Your task to perform on an android device: change keyboard looks Image 0: 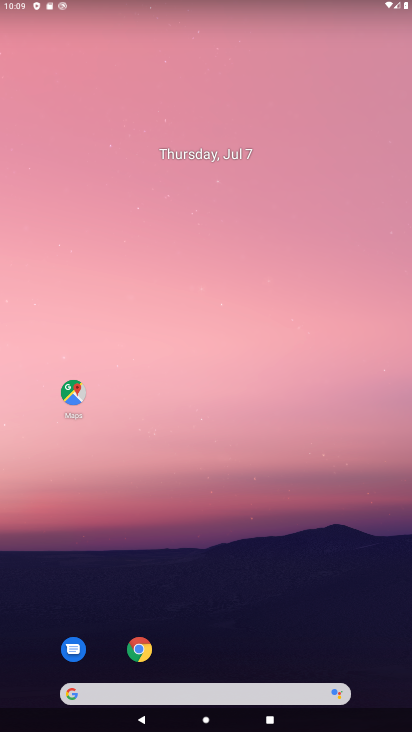
Step 0: drag from (301, 643) to (263, 152)
Your task to perform on an android device: change keyboard looks Image 1: 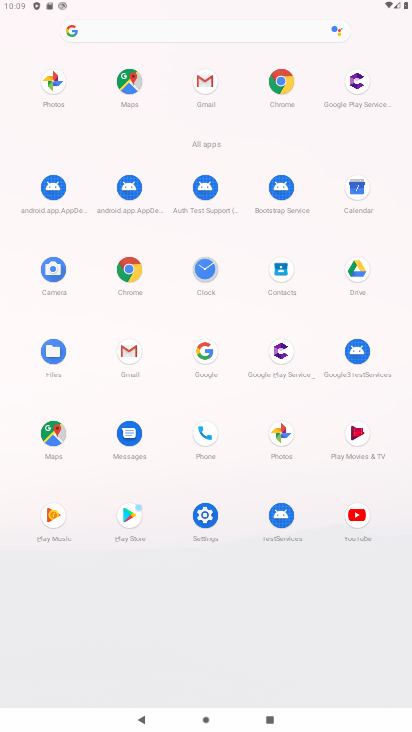
Step 1: click (219, 513)
Your task to perform on an android device: change keyboard looks Image 2: 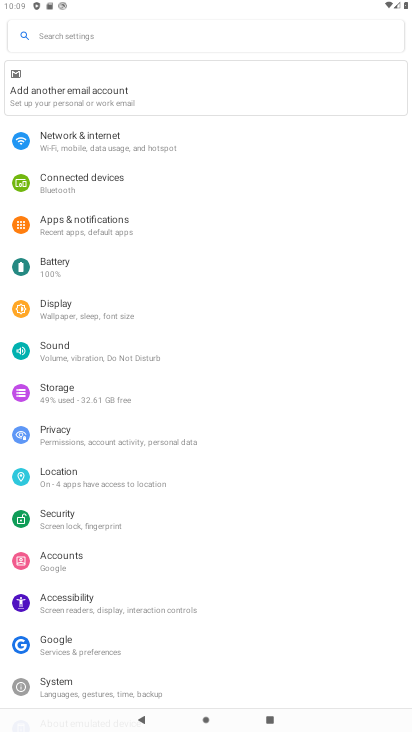
Step 2: drag from (244, 587) to (269, 112)
Your task to perform on an android device: change keyboard looks Image 3: 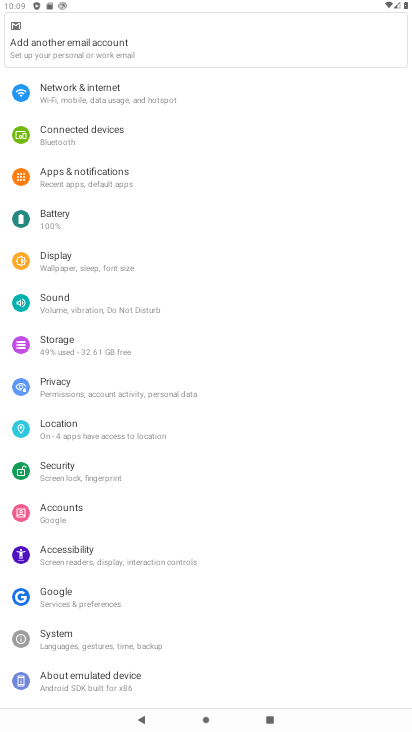
Step 3: drag from (228, 580) to (232, 125)
Your task to perform on an android device: change keyboard looks Image 4: 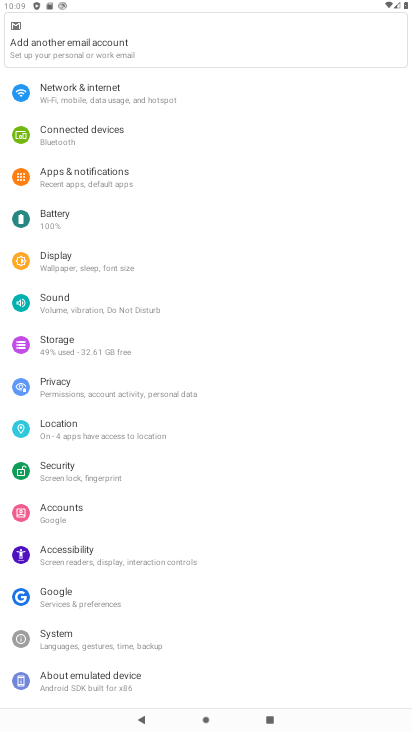
Step 4: click (153, 645)
Your task to perform on an android device: change keyboard looks Image 5: 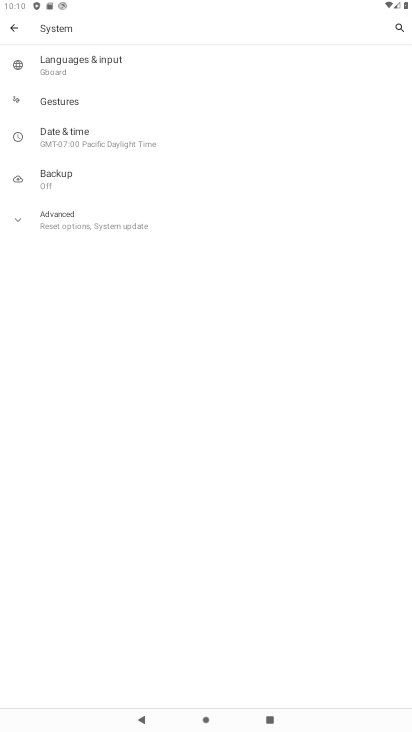
Step 5: click (80, 70)
Your task to perform on an android device: change keyboard looks Image 6: 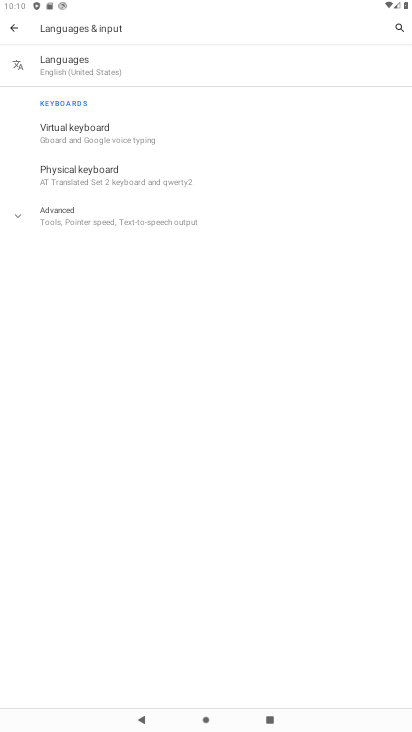
Step 6: click (94, 124)
Your task to perform on an android device: change keyboard looks Image 7: 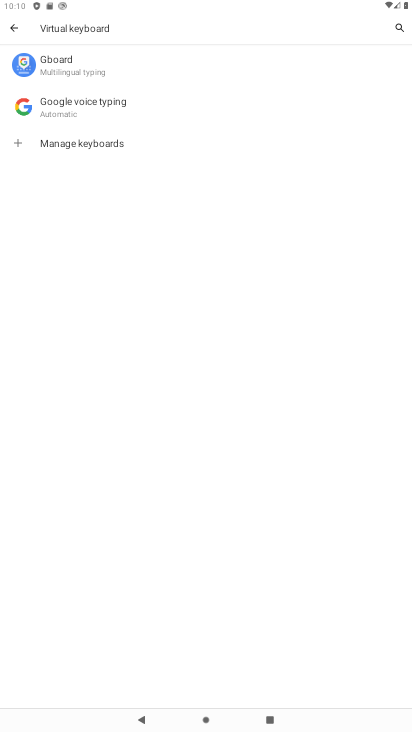
Step 7: click (90, 73)
Your task to perform on an android device: change keyboard looks Image 8: 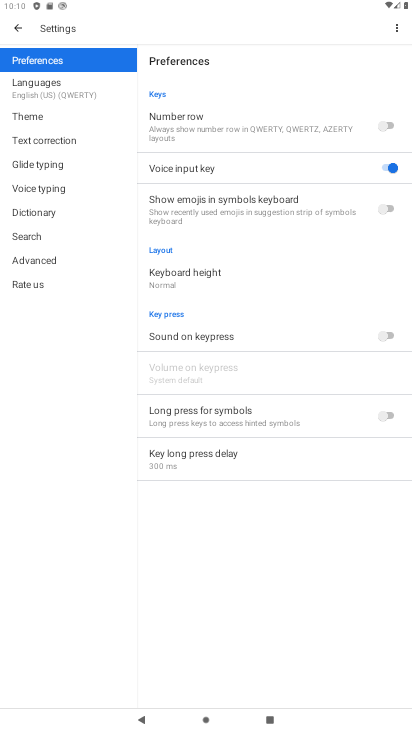
Step 8: click (53, 122)
Your task to perform on an android device: change keyboard looks Image 9: 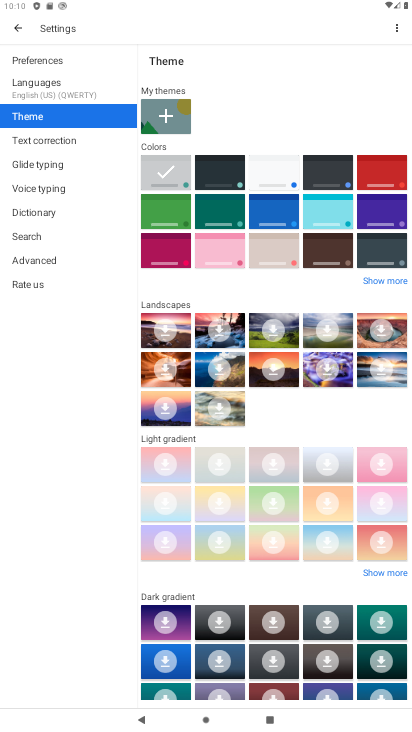
Step 9: click (223, 223)
Your task to perform on an android device: change keyboard looks Image 10: 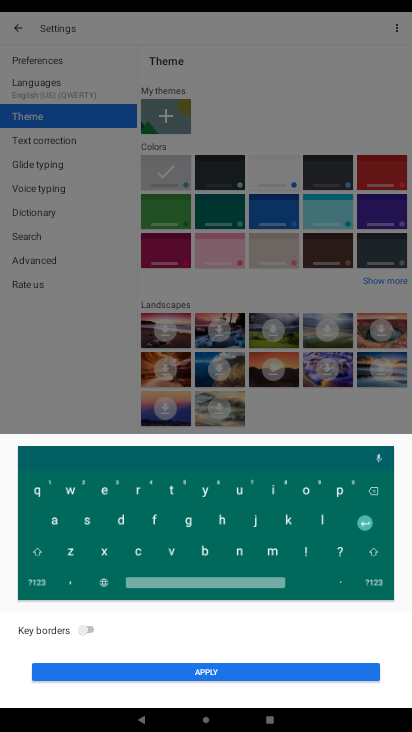
Step 10: click (235, 676)
Your task to perform on an android device: change keyboard looks Image 11: 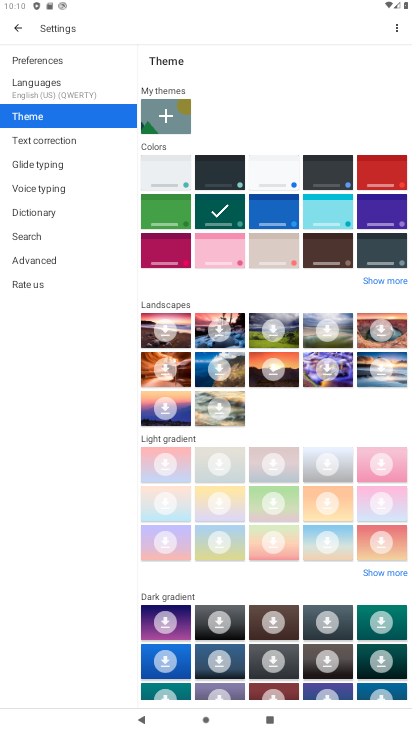
Step 11: task complete